Your task to perform on an android device: Go to Android settings Image 0: 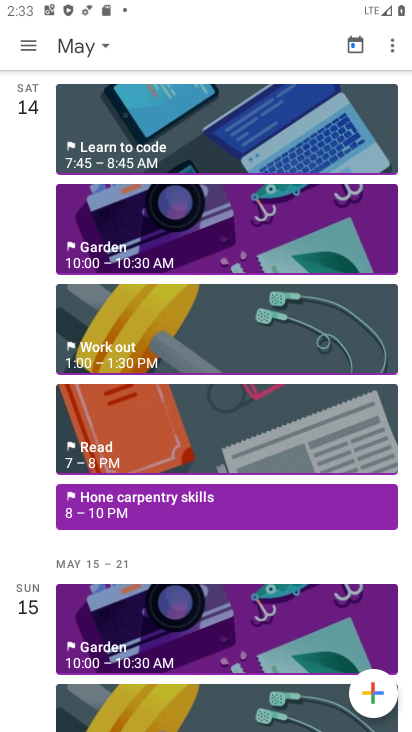
Step 0: press home button
Your task to perform on an android device: Go to Android settings Image 1: 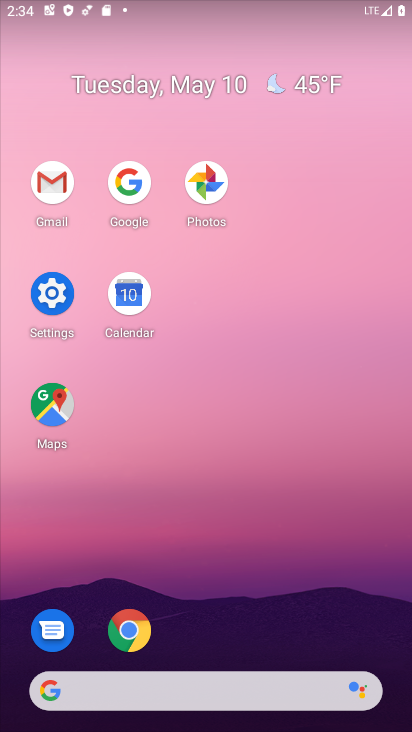
Step 1: click (57, 284)
Your task to perform on an android device: Go to Android settings Image 2: 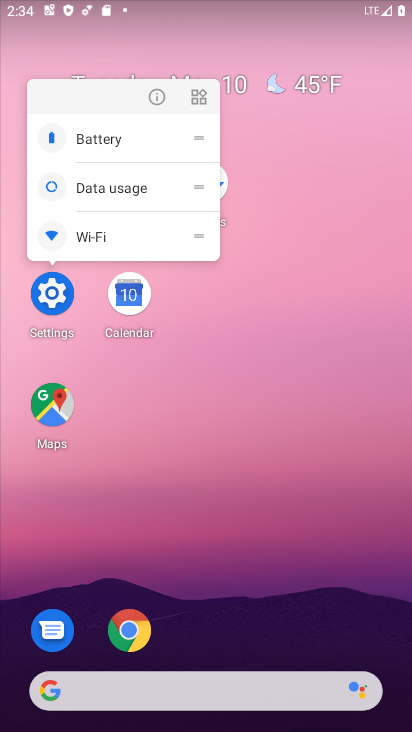
Step 2: click (46, 303)
Your task to perform on an android device: Go to Android settings Image 3: 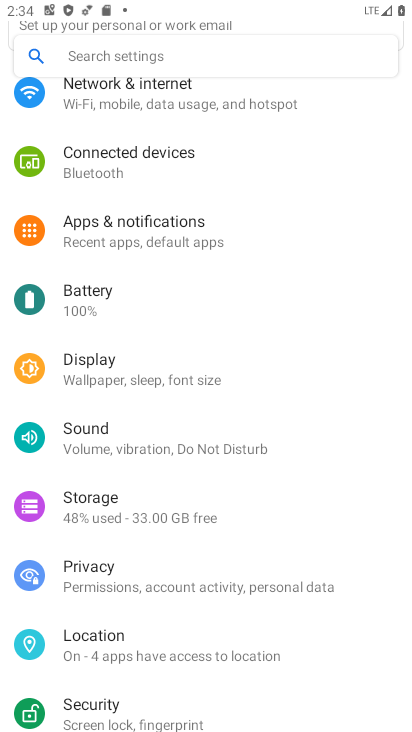
Step 3: task complete